Your task to perform on an android device: open the mobile data screen to see how much data has been used Image 0: 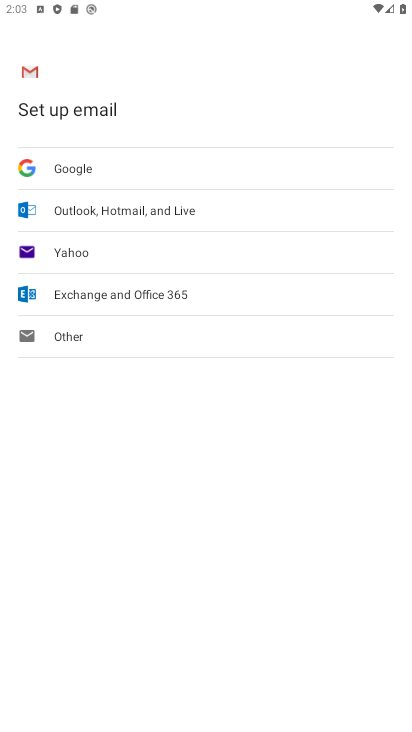
Step 0: press back button
Your task to perform on an android device: open the mobile data screen to see how much data has been used Image 1: 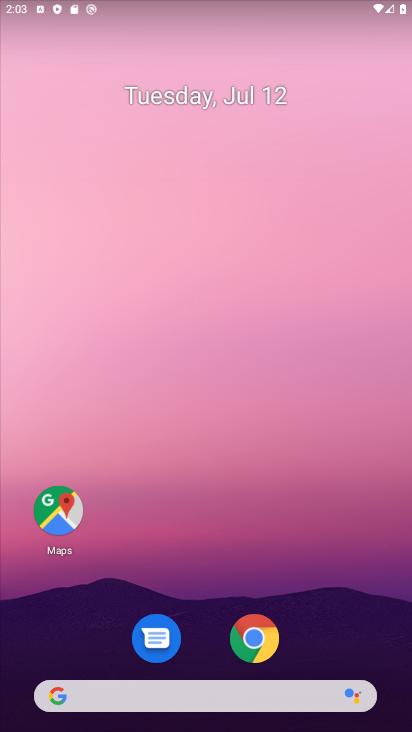
Step 1: drag from (226, 606) to (231, 30)
Your task to perform on an android device: open the mobile data screen to see how much data has been used Image 2: 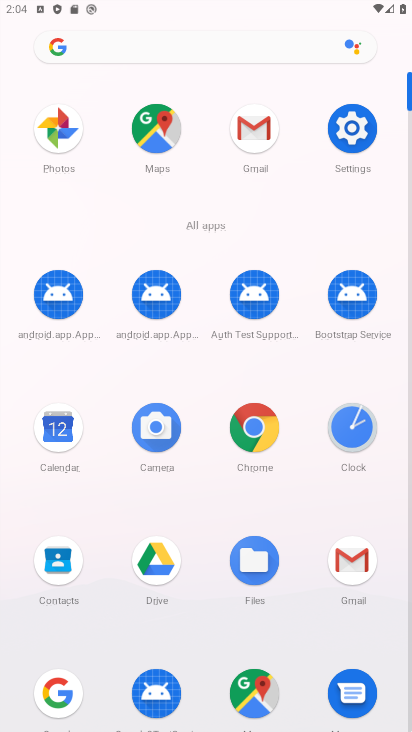
Step 2: click (349, 120)
Your task to perform on an android device: open the mobile data screen to see how much data has been used Image 3: 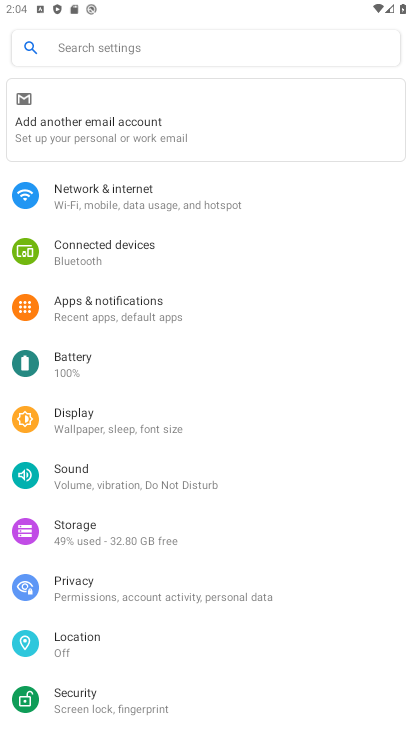
Step 3: click (125, 201)
Your task to perform on an android device: open the mobile data screen to see how much data has been used Image 4: 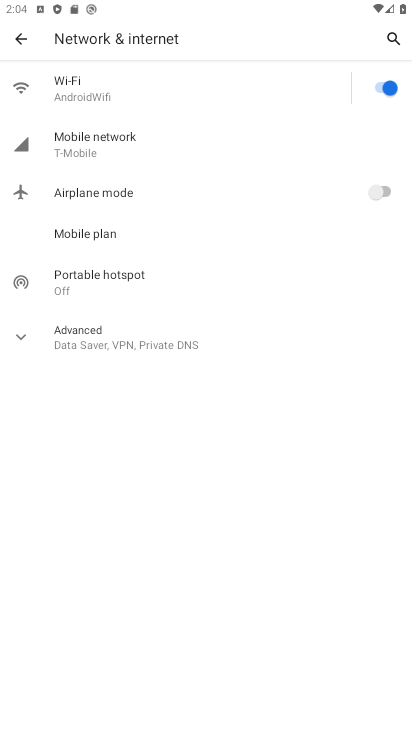
Step 4: click (70, 150)
Your task to perform on an android device: open the mobile data screen to see how much data has been used Image 5: 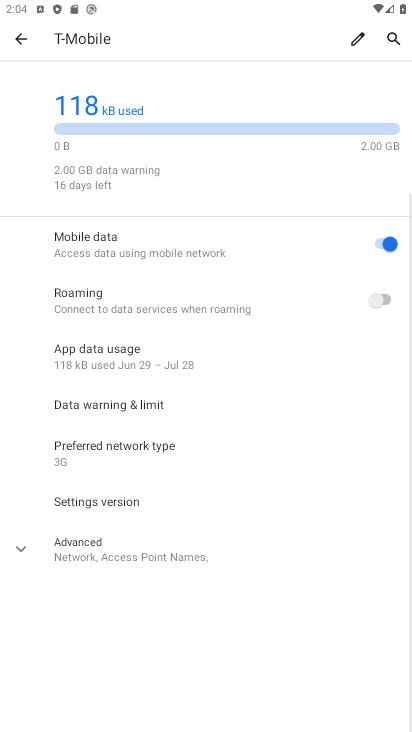
Step 5: click (137, 348)
Your task to perform on an android device: open the mobile data screen to see how much data has been used Image 6: 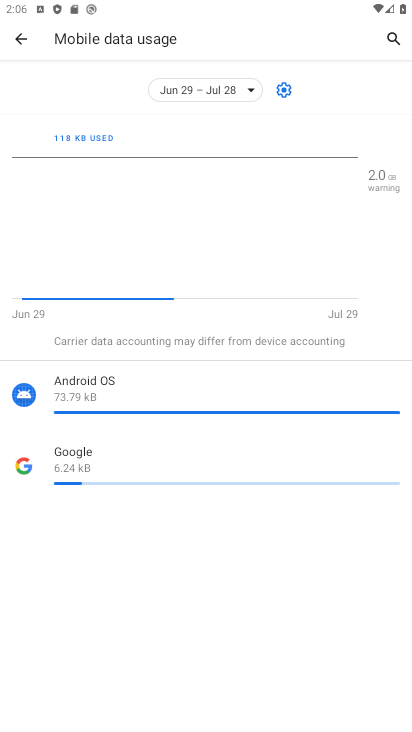
Step 6: task complete